Your task to perform on an android device: delete location history Image 0: 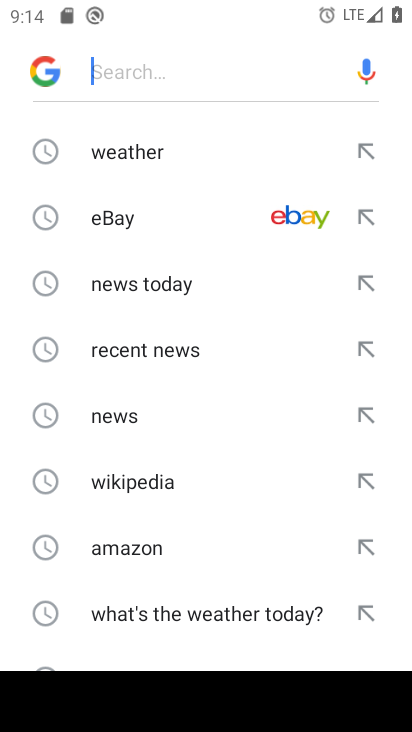
Step 0: press home button
Your task to perform on an android device: delete location history Image 1: 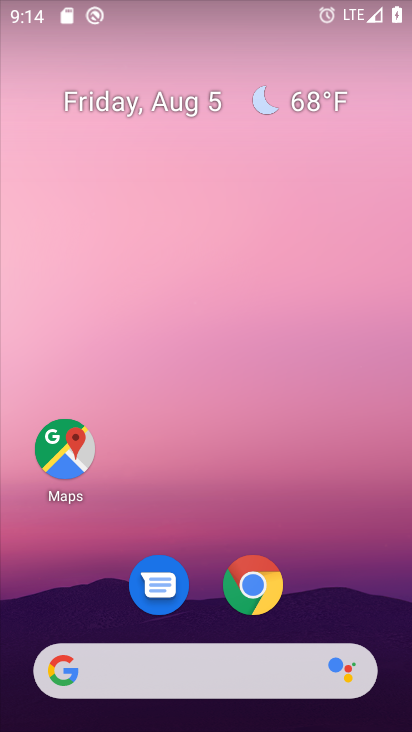
Step 1: drag from (251, 187) to (255, 7)
Your task to perform on an android device: delete location history Image 2: 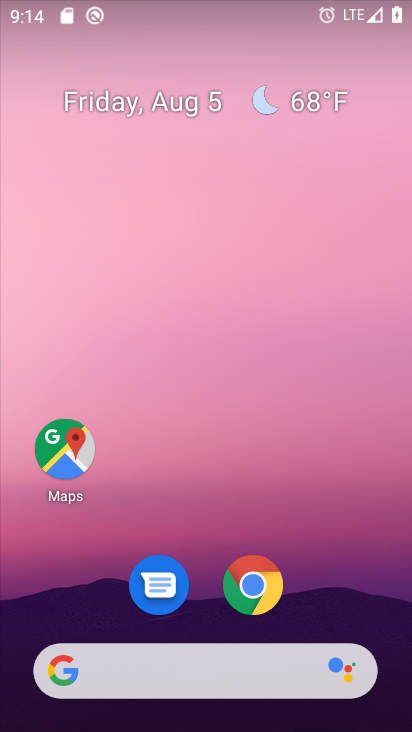
Step 2: drag from (340, 598) to (318, 0)
Your task to perform on an android device: delete location history Image 3: 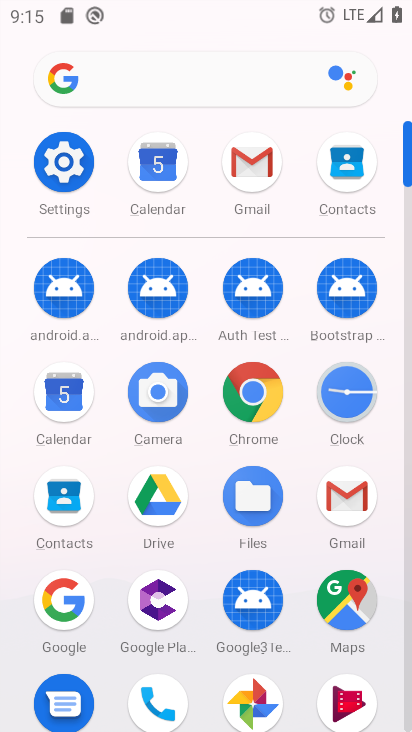
Step 3: click (339, 605)
Your task to perform on an android device: delete location history Image 4: 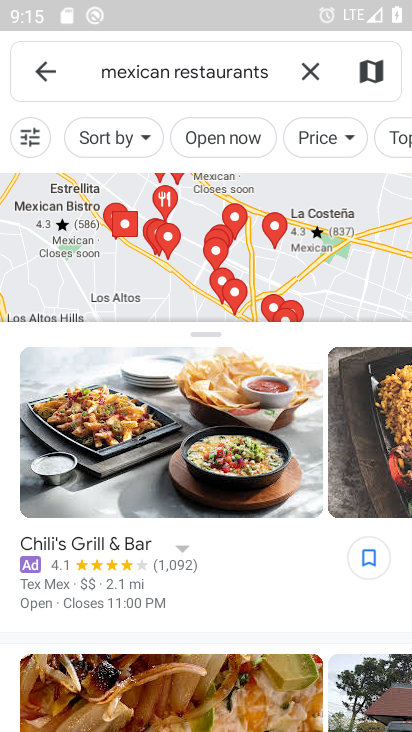
Step 4: click (53, 70)
Your task to perform on an android device: delete location history Image 5: 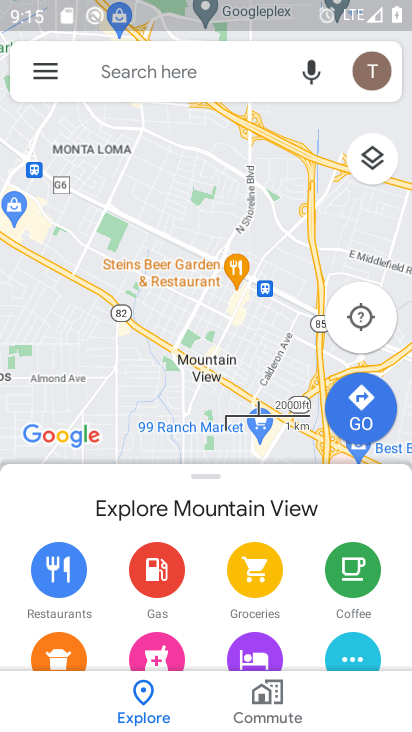
Step 5: click (53, 71)
Your task to perform on an android device: delete location history Image 6: 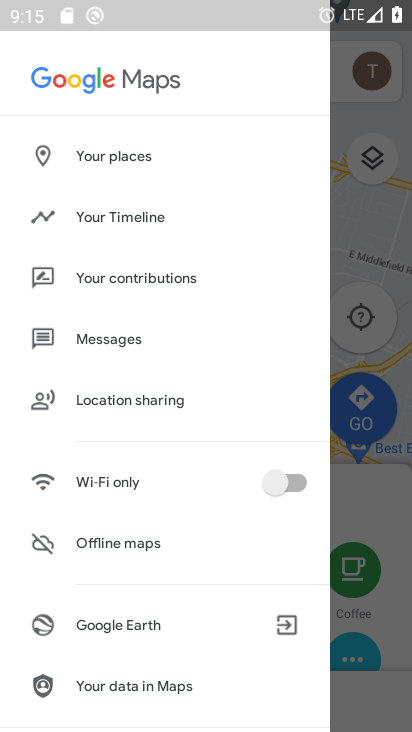
Step 6: click (143, 200)
Your task to perform on an android device: delete location history Image 7: 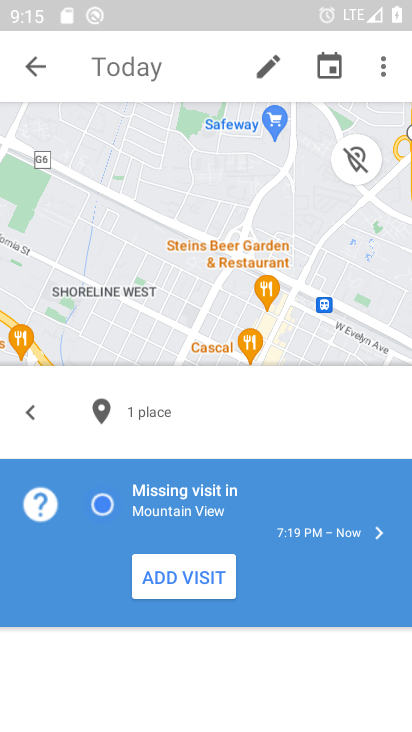
Step 7: click (384, 71)
Your task to perform on an android device: delete location history Image 8: 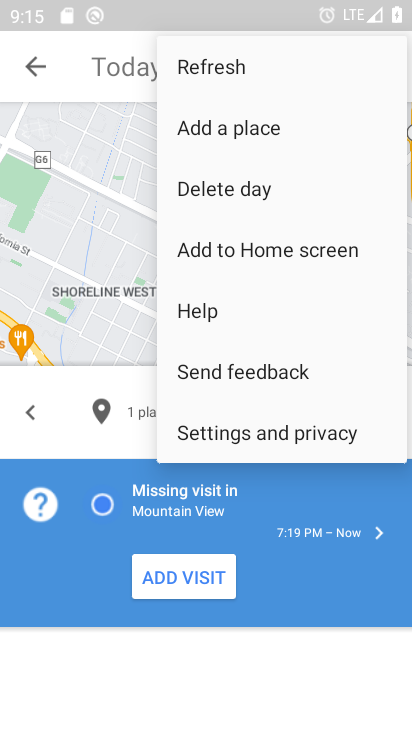
Step 8: click (312, 428)
Your task to perform on an android device: delete location history Image 9: 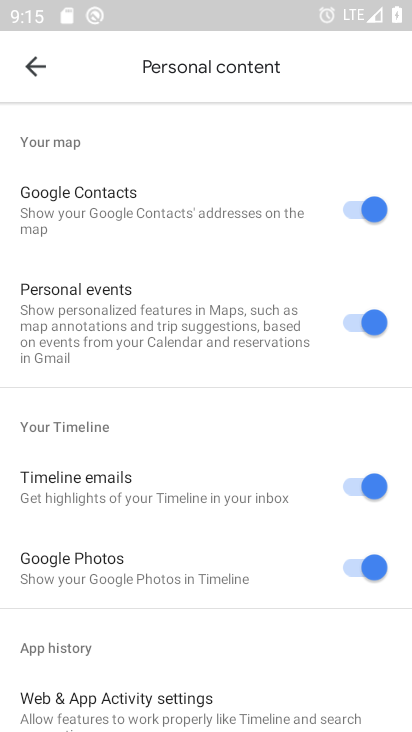
Step 9: drag from (201, 609) to (221, 0)
Your task to perform on an android device: delete location history Image 10: 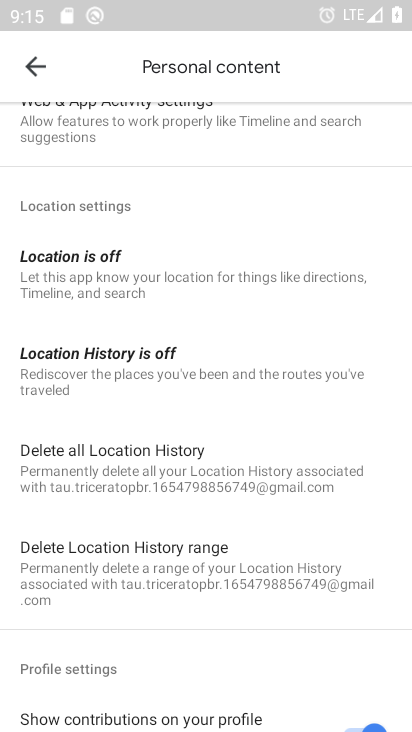
Step 10: drag from (186, 605) to (191, 553)
Your task to perform on an android device: delete location history Image 11: 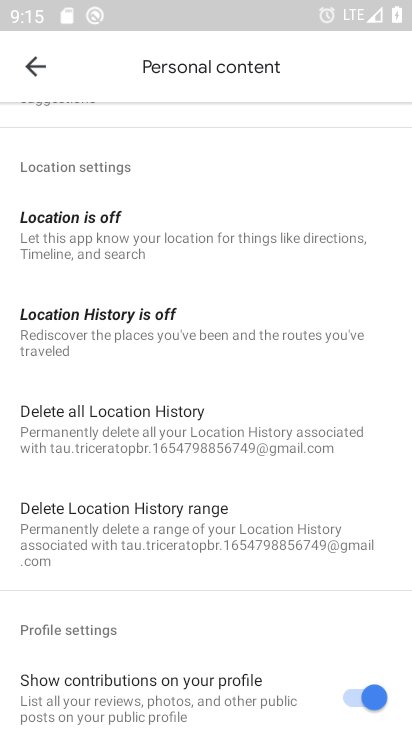
Step 11: click (216, 436)
Your task to perform on an android device: delete location history Image 12: 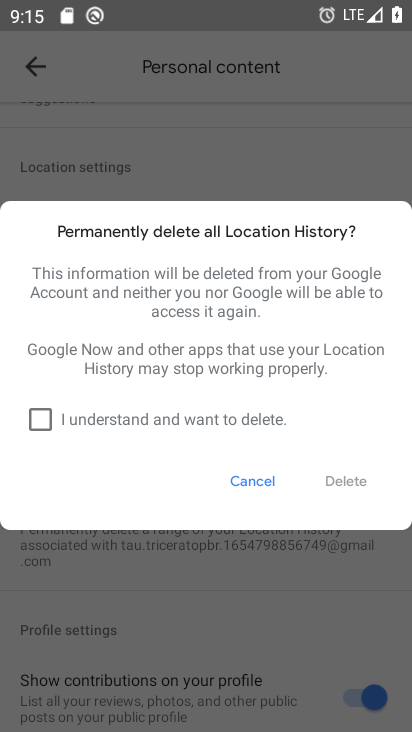
Step 12: click (45, 417)
Your task to perform on an android device: delete location history Image 13: 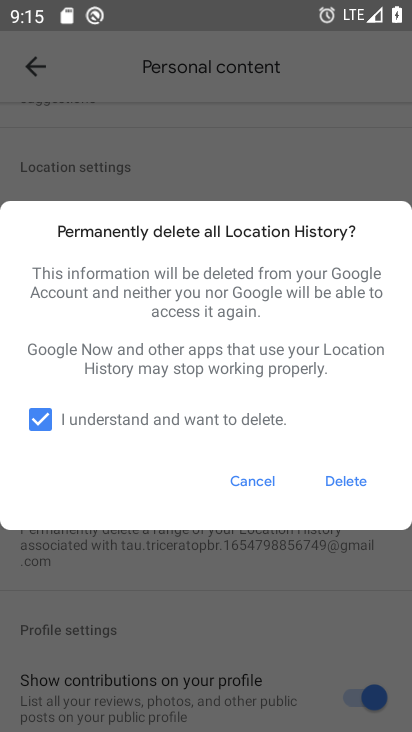
Step 13: click (336, 477)
Your task to perform on an android device: delete location history Image 14: 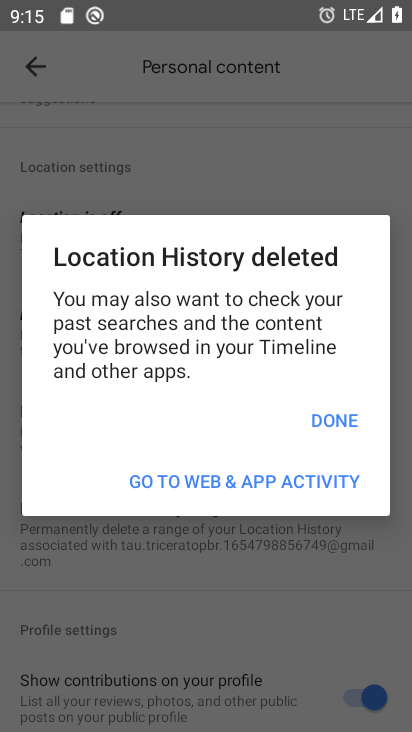
Step 14: click (341, 419)
Your task to perform on an android device: delete location history Image 15: 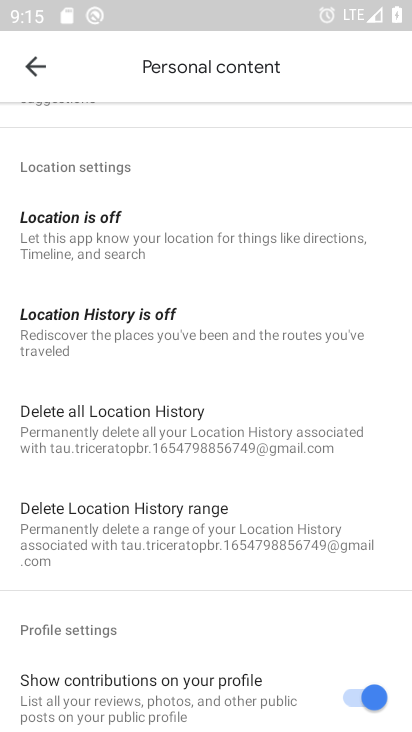
Step 15: task complete